Your task to perform on an android device: set default search engine in the chrome app Image 0: 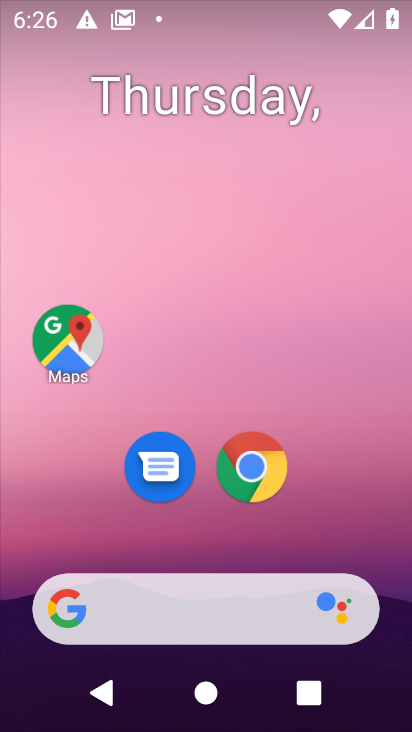
Step 0: click (256, 444)
Your task to perform on an android device: set default search engine in the chrome app Image 1: 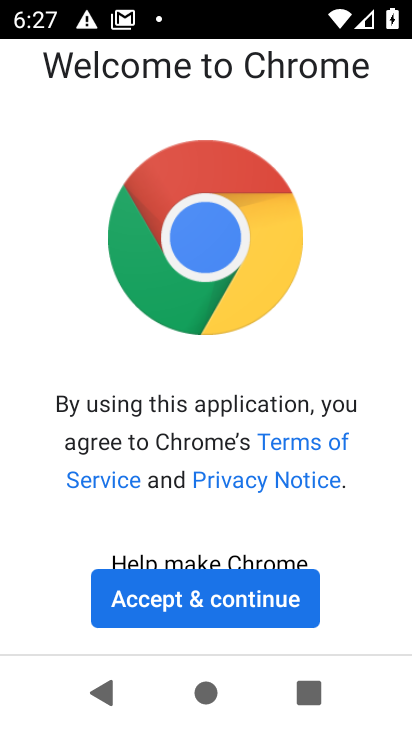
Step 1: task complete